Your task to perform on an android device: turn on translation in the chrome app Image 0: 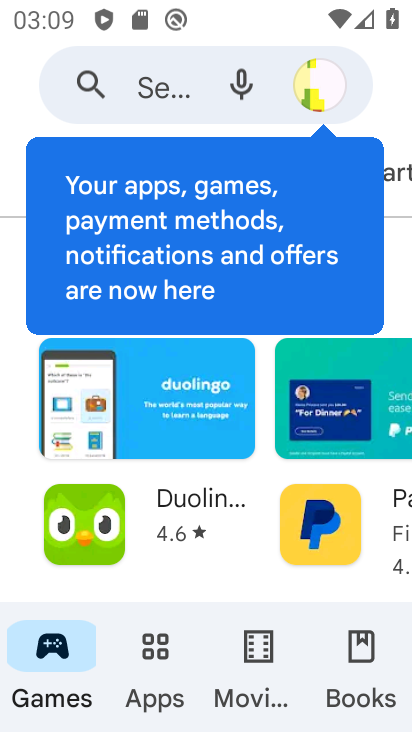
Step 0: press back button
Your task to perform on an android device: turn on translation in the chrome app Image 1: 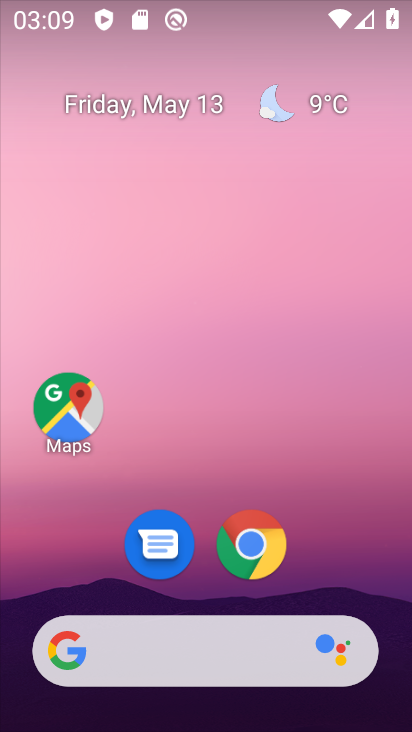
Step 1: drag from (312, 519) to (295, 80)
Your task to perform on an android device: turn on translation in the chrome app Image 2: 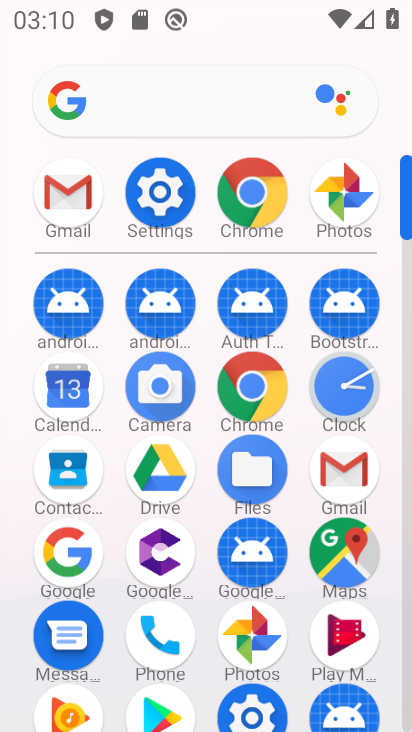
Step 2: click (247, 185)
Your task to perform on an android device: turn on translation in the chrome app Image 3: 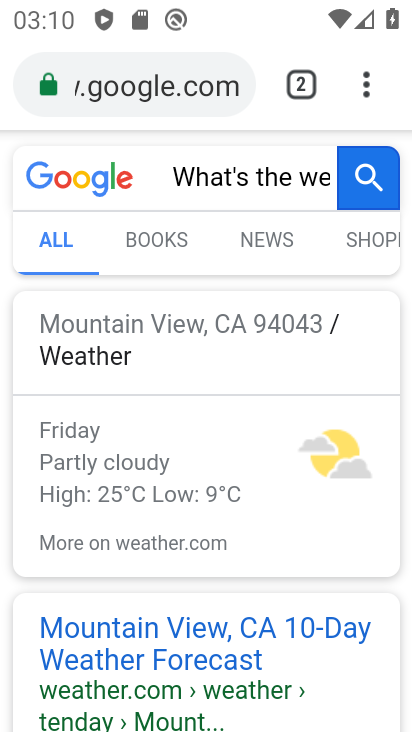
Step 3: drag from (365, 81) to (157, 598)
Your task to perform on an android device: turn on translation in the chrome app Image 4: 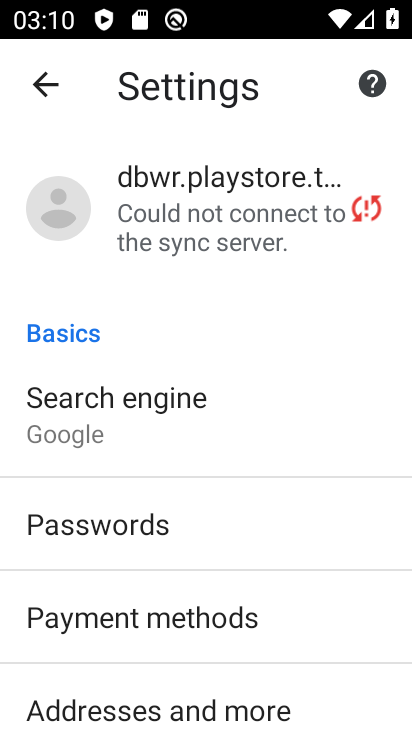
Step 4: drag from (207, 584) to (207, 272)
Your task to perform on an android device: turn on translation in the chrome app Image 5: 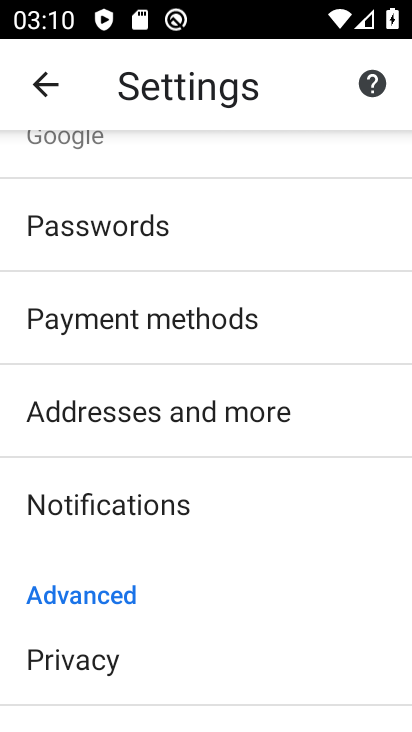
Step 5: drag from (216, 562) to (235, 210)
Your task to perform on an android device: turn on translation in the chrome app Image 6: 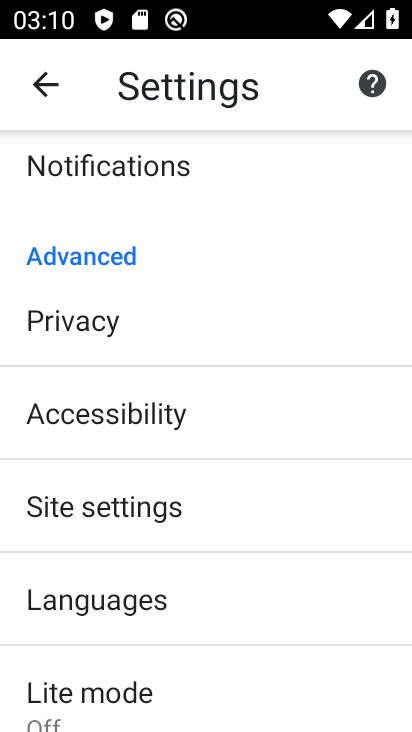
Step 6: drag from (240, 554) to (238, 200)
Your task to perform on an android device: turn on translation in the chrome app Image 7: 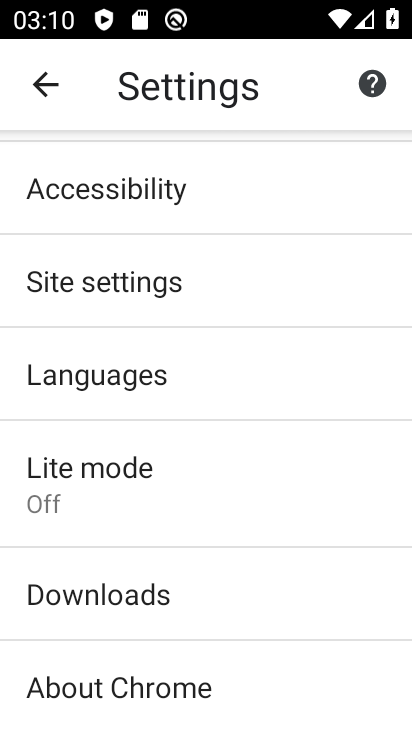
Step 7: click (142, 376)
Your task to perform on an android device: turn on translation in the chrome app Image 8: 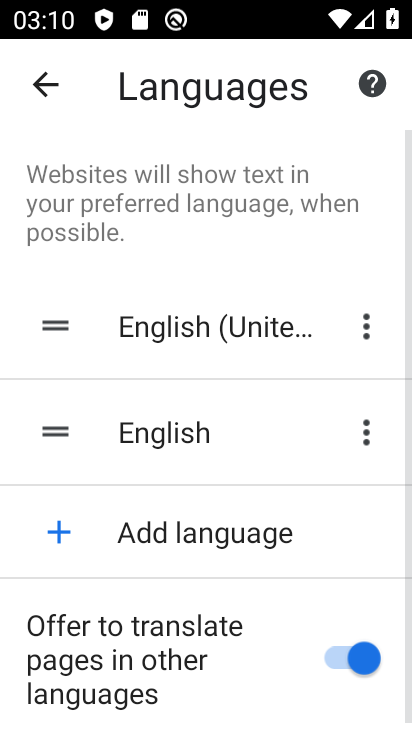
Step 8: task complete